Your task to perform on an android device: Open Google Chrome Image 0: 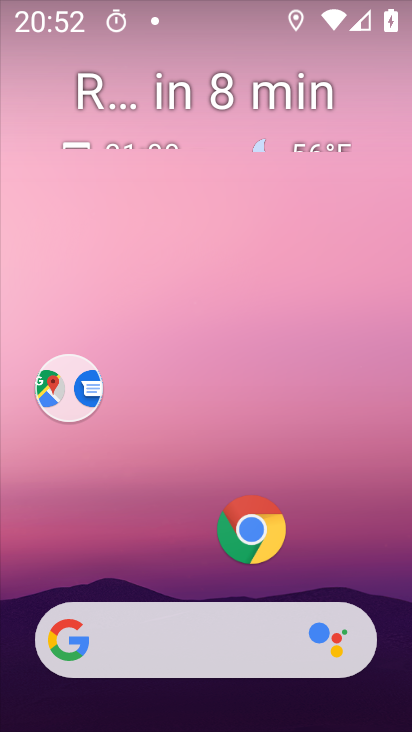
Step 0: click (190, 561)
Your task to perform on an android device: Open Google Chrome Image 1: 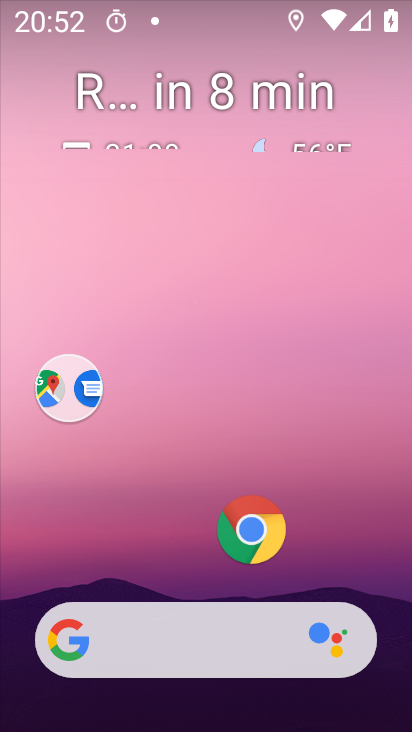
Step 1: click (257, 533)
Your task to perform on an android device: Open Google Chrome Image 2: 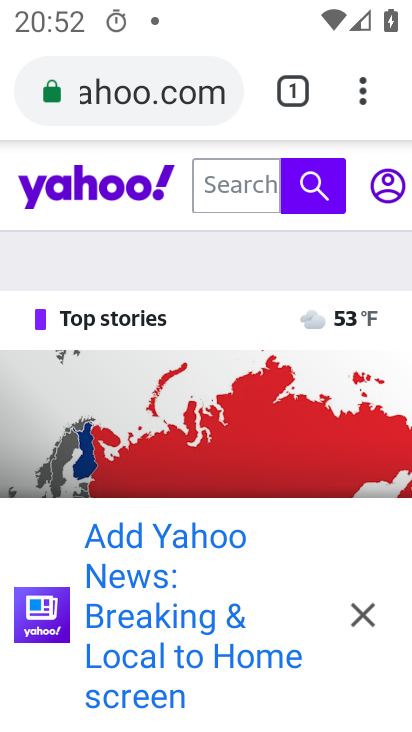
Step 2: task complete